Your task to perform on an android device: turn on location history Image 0: 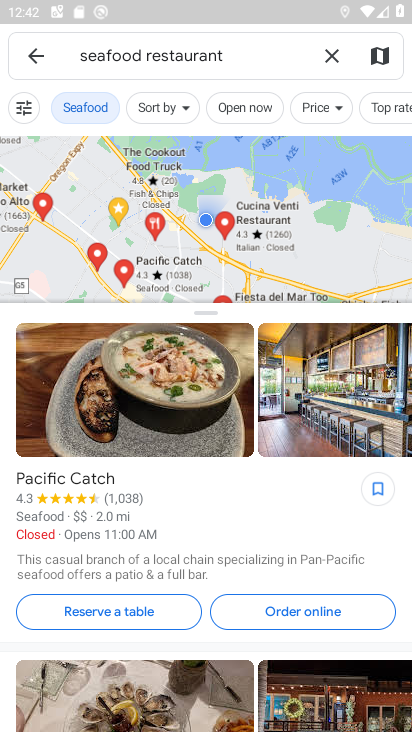
Step 0: press enter
Your task to perform on an android device: turn on location history Image 1: 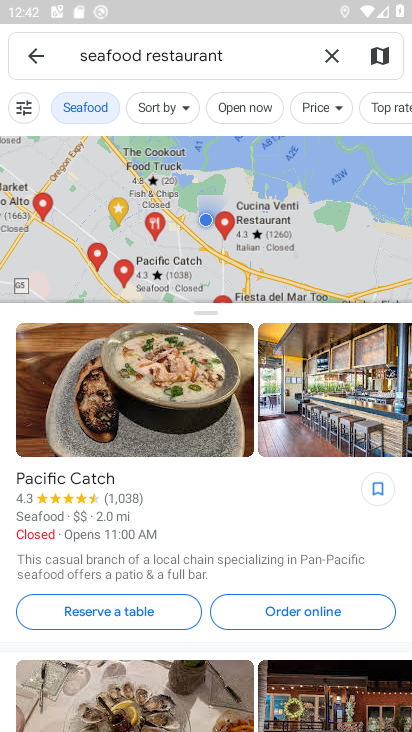
Step 1: press enter
Your task to perform on an android device: turn on location history Image 2: 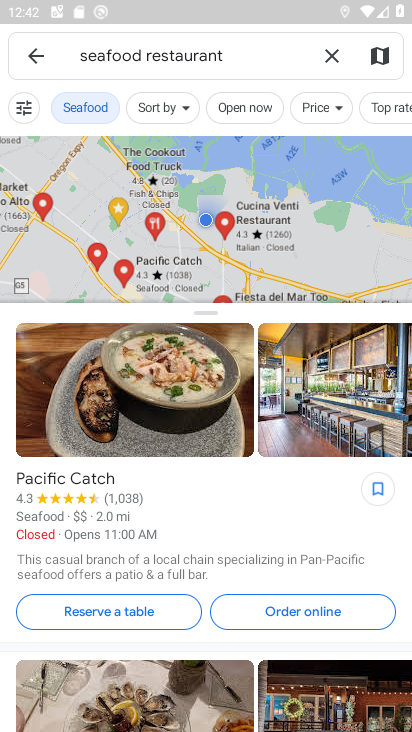
Step 2: press home button
Your task to perform on an android device: turn on location history Image 3: 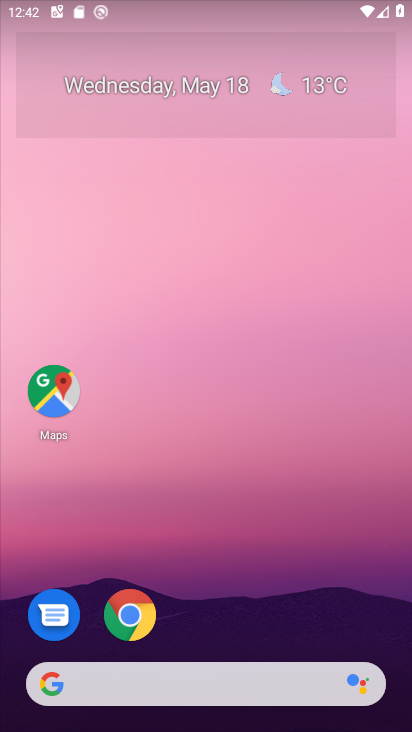
Step 3: drag from (395, 699) to (310, 336)
Your task to perform on an android device: turn on location history Image 4: 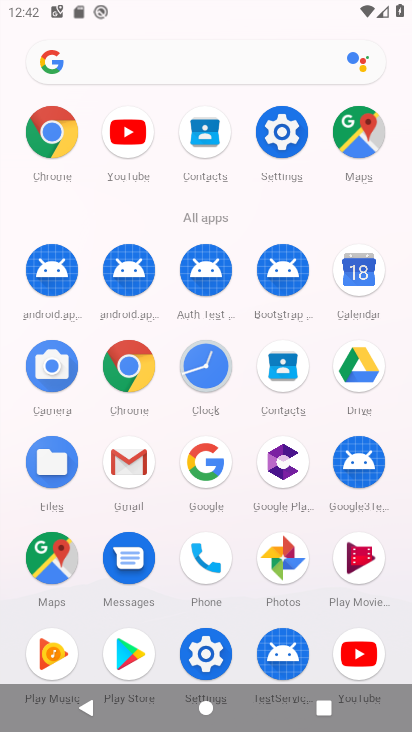
Step 4: click (281, 137)
Your task to perform on an android device: turn on location history Image 5: 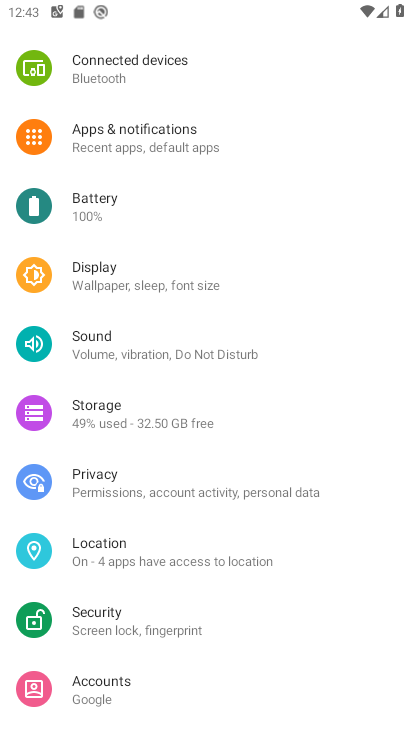
Step 5: click (135, 544)
Your task to perform on an android device: turn on location history Image 6: 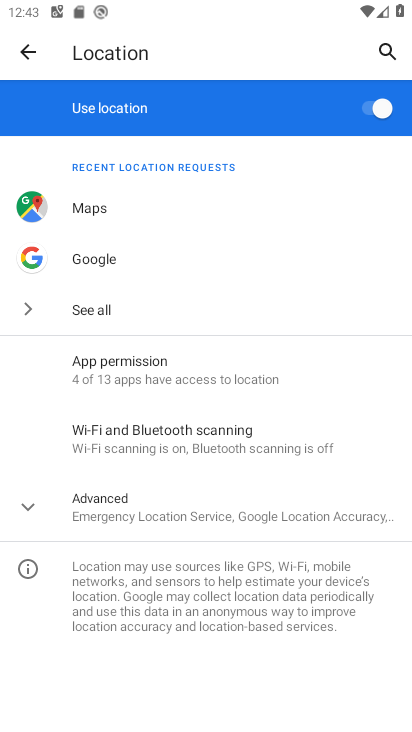
Step 6: task complete